Your task to perform on an android device: toggle pop-ups in chrome Image 0: 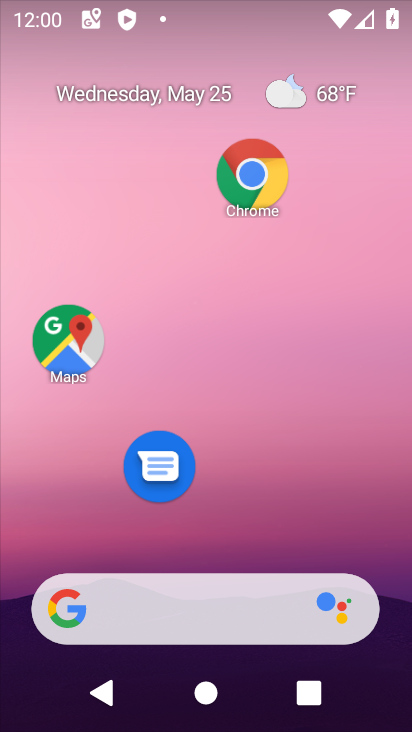
Step 0: click (252, 181)
Your task to perform on an android device: toggle pop-ups in chrome Image 1: 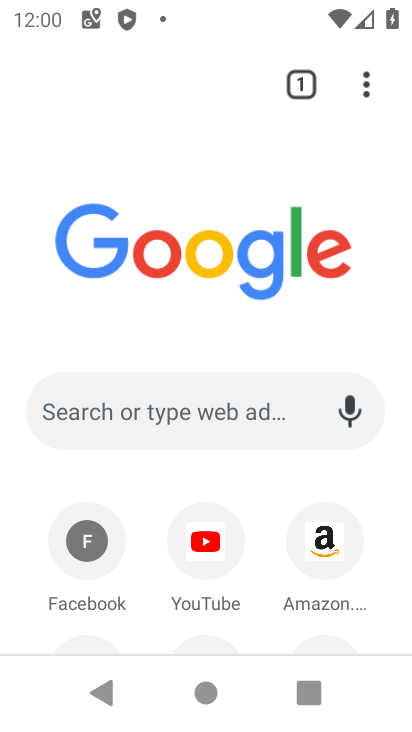
Step 1: click (380, 107)
Your task to perform on an android device: toggle pop-ups in chrome Image 2: 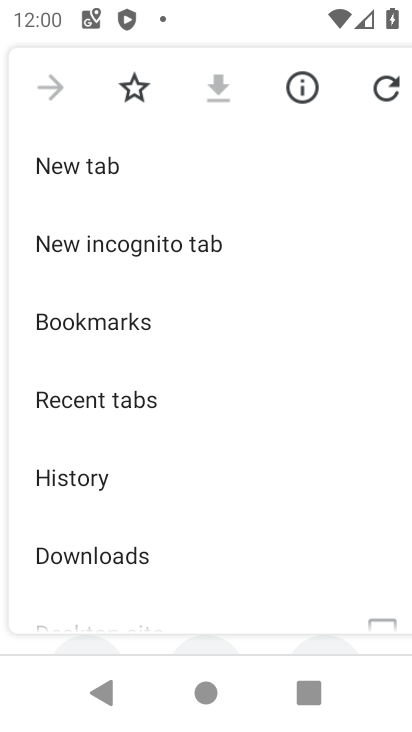
Step 2: drag from (226, 395) to (247, 136)
Your task to perform on an android device: toggle pop-ups in chrome Image 3: 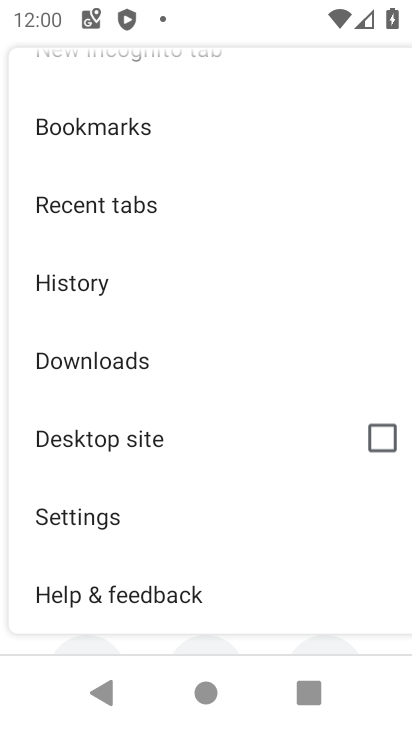
Step 3: click (65, 541)
Your task to perform on an android device: toggle pop-ups in chrome Image 4: 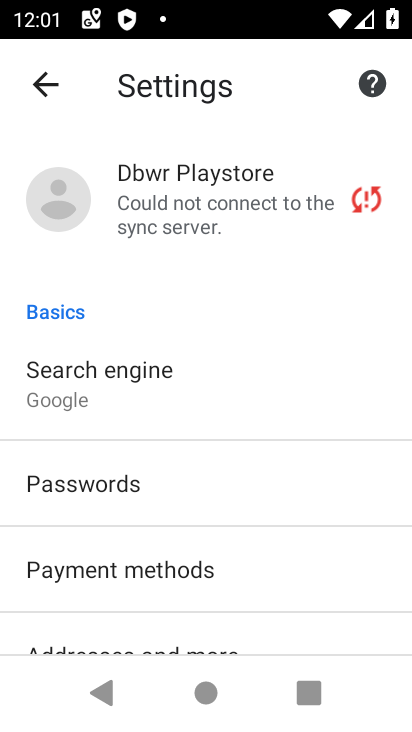
Step 4: drag from (65, 541) to (178, 100)
Your task to perform on an android device: toggle pop-ups in chrome Image 5: 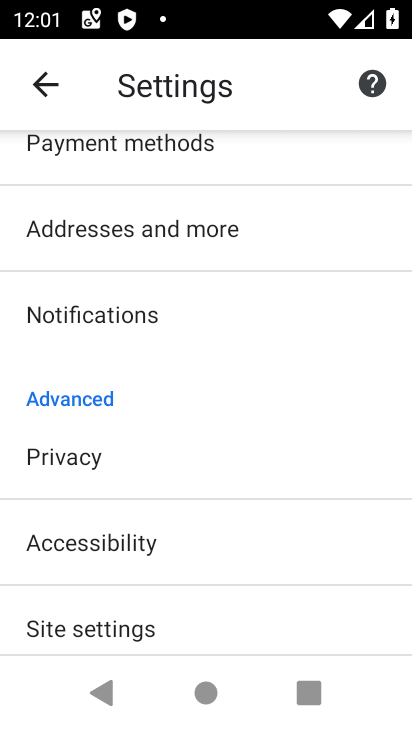
Step 5: click (112, 637)
Your task to perform on an android device: toggle pop-ups in chrome Image 6: 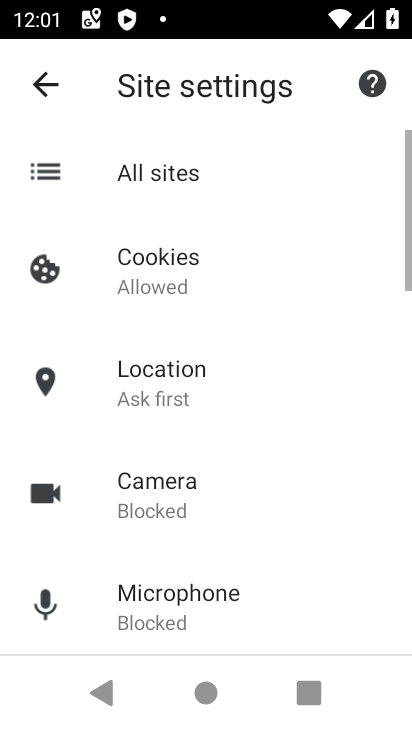
Step 6: drag from (112, 637) to (51, 49)
Your task to perform on an android device: toggle pop-ups in chrome Image 7: 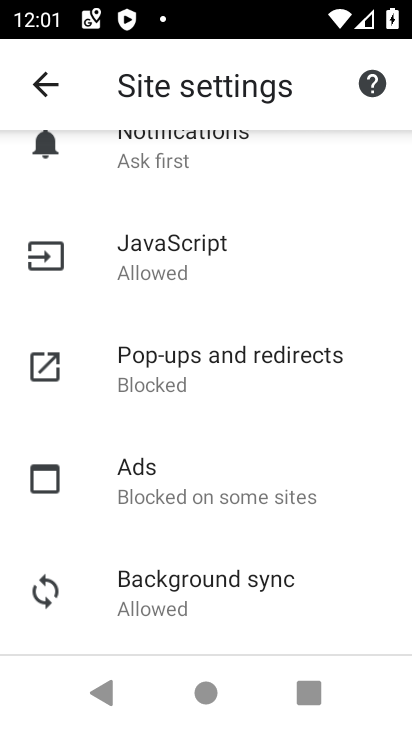
Step 7: click (234, 331)
Your task to perform on an android device: toggle pop-ups in chrome Image 8: 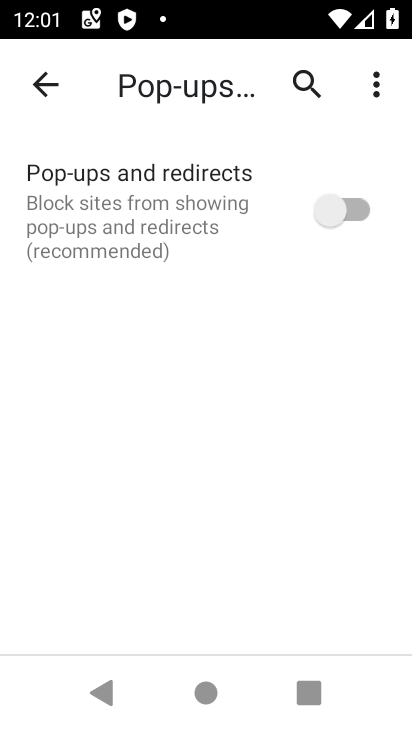
Step 8: click (337, 224)
Your task to perform on an android device: toggle pop-ups in chrome Image 9: 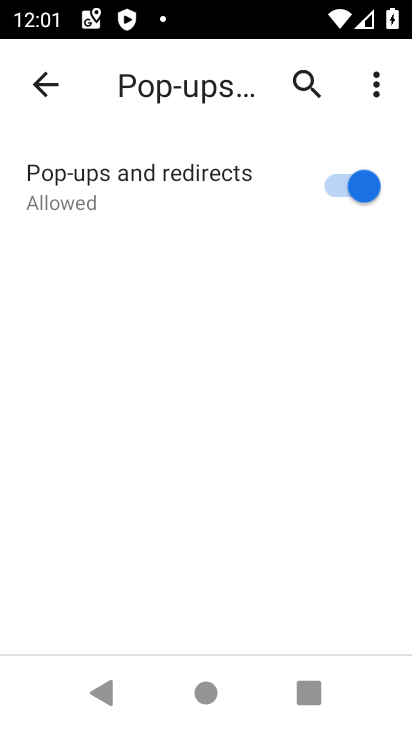
Step 9: click (337, 224)
Your task to perform on an android device: toggle pop-ups in chrome Image 10: 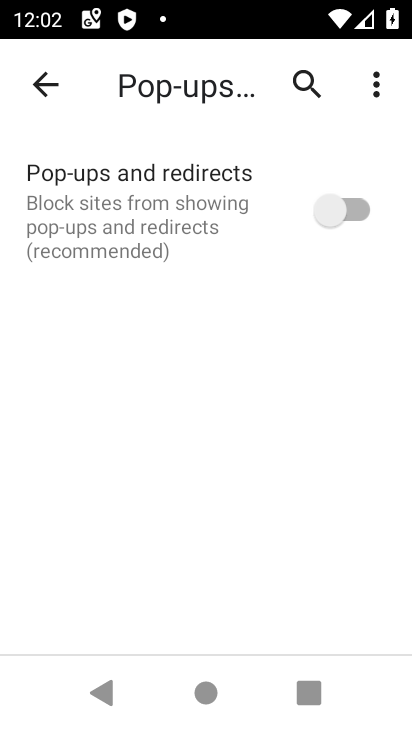
Step 10: click (343, 230)
Your task to perform on an android device: toggle pop-ups in chrome Image 11: 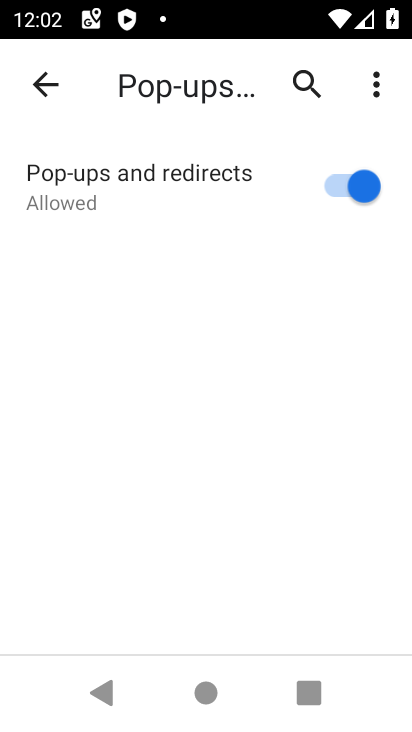
Step 11: task complete